Your task to perform on an android device: install app "Roku - Official Remote Control" Image 0: 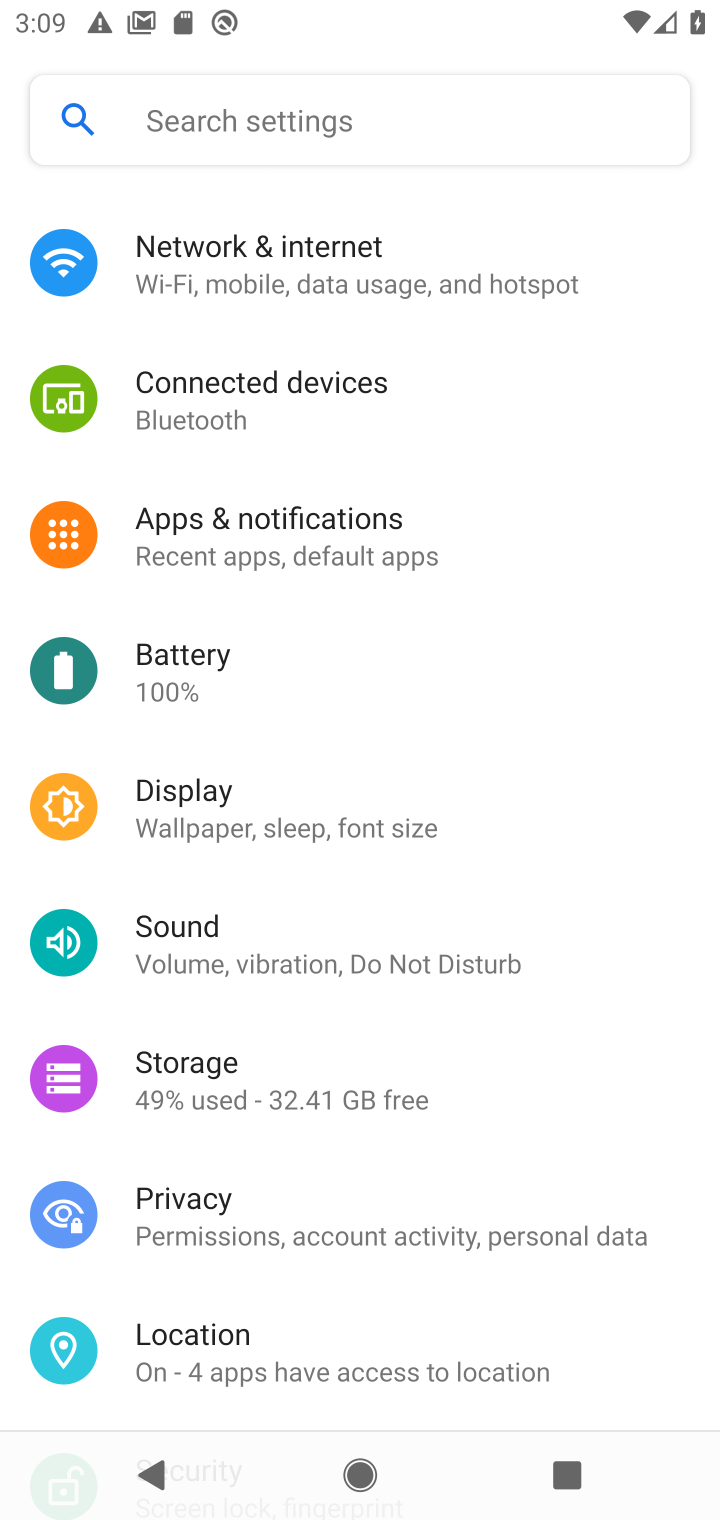
Step 0: press home button
Your task to perform on an android device: install app "Roku - Official Remote Control" Image 1: 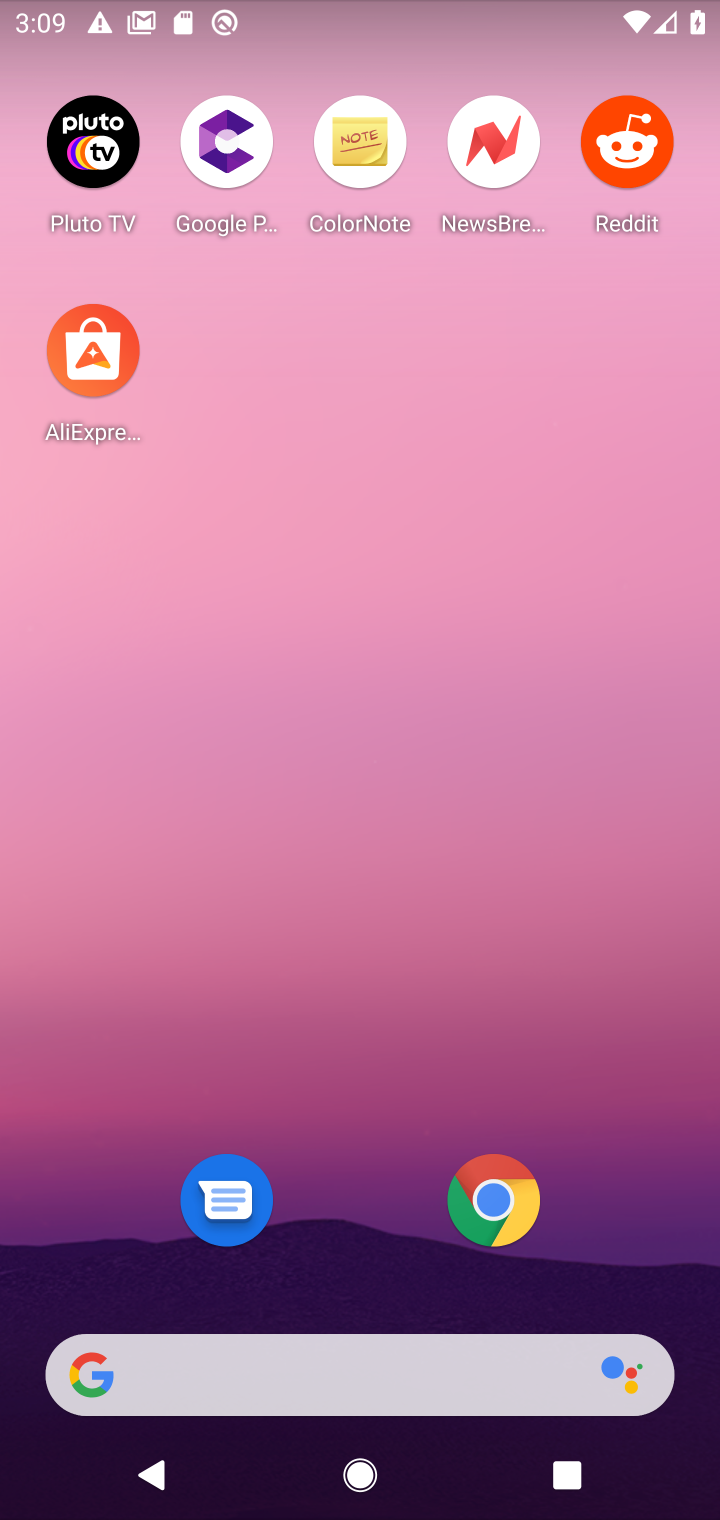
Step 1: drag from (293, 1108) to (380, 81)
Your task to perform on an android device: install app "Roku - Official Remote Control" Image 2: 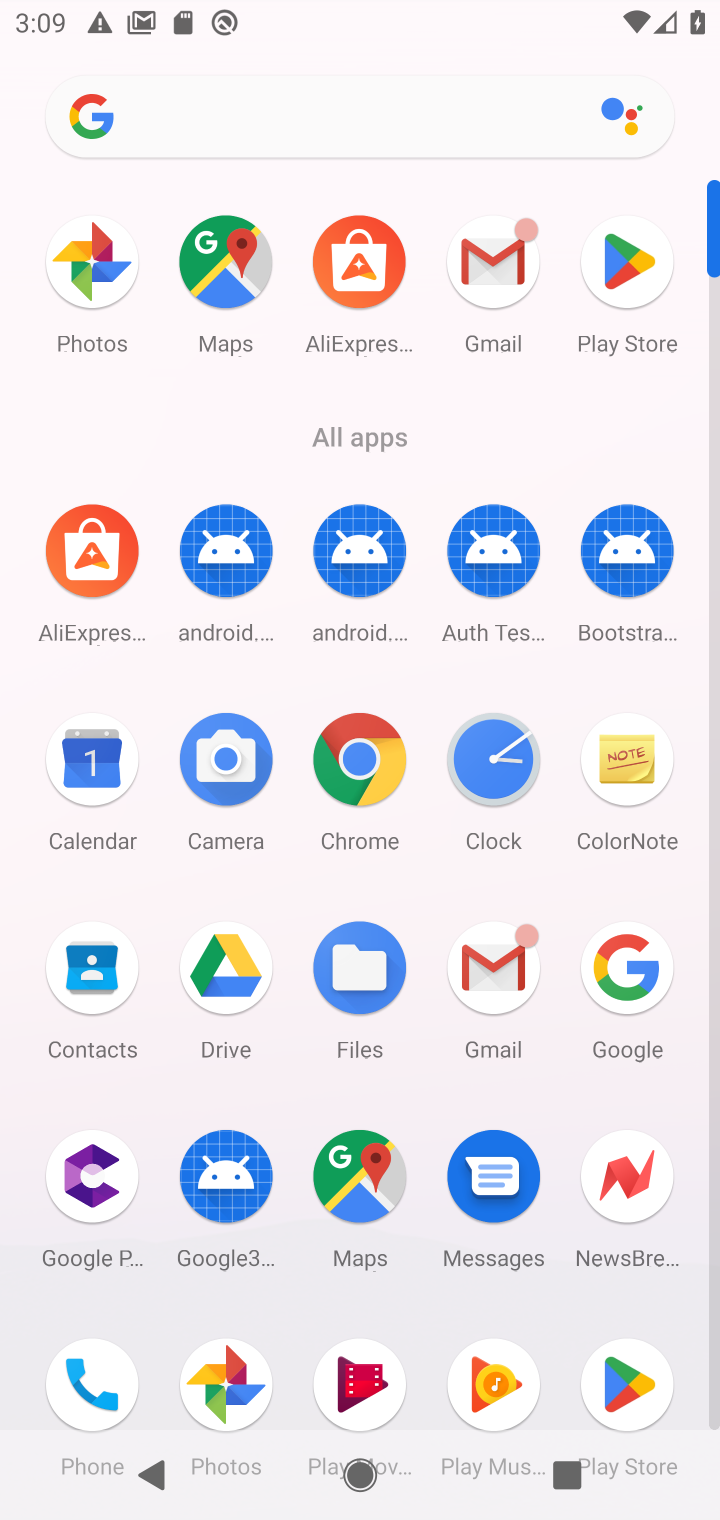
Step 2: click (634, 300)
Your task to perform on an android device: install app "Roku - Official Remote Control" Image 3: 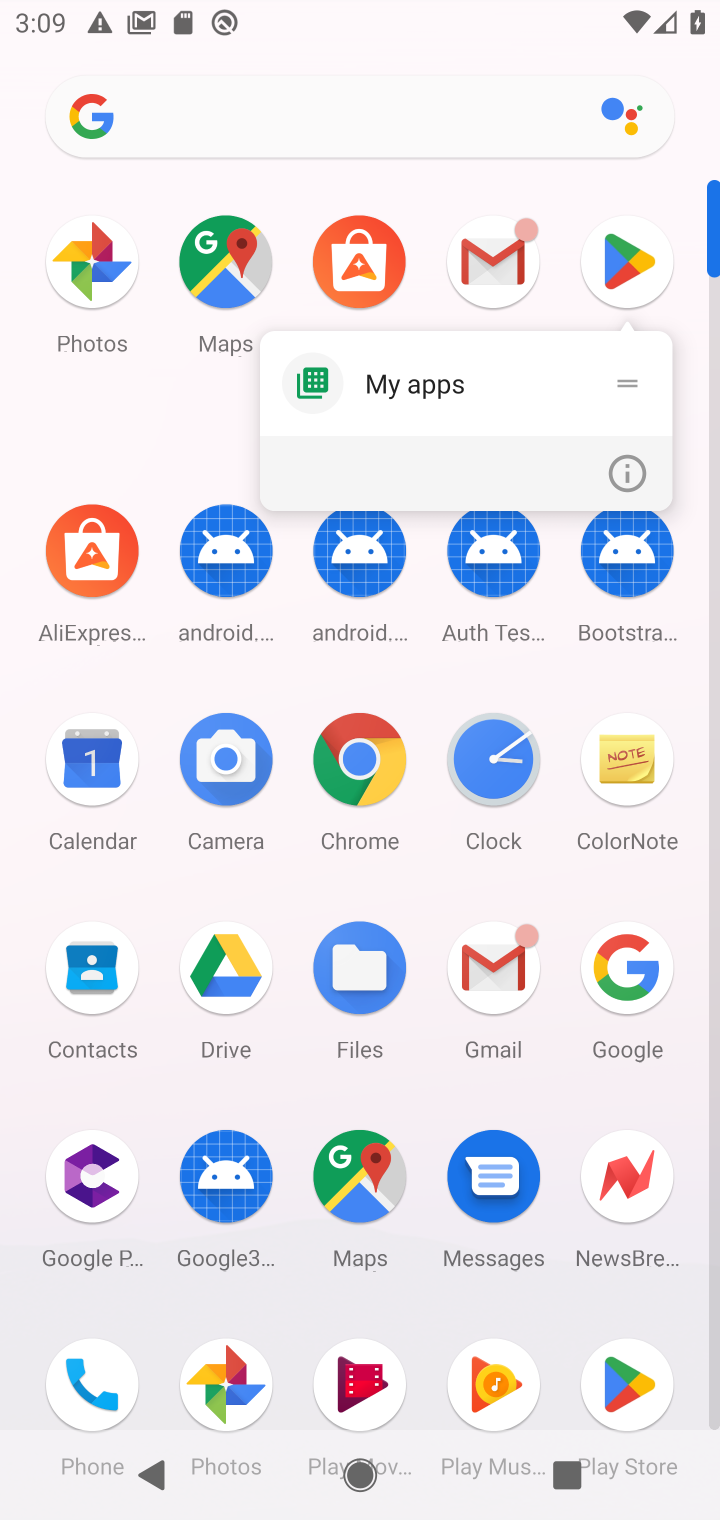
Step 3: click (622, 266)
Your task to perform on an android device: install app "Roku - Official Remote Control" Image 4: 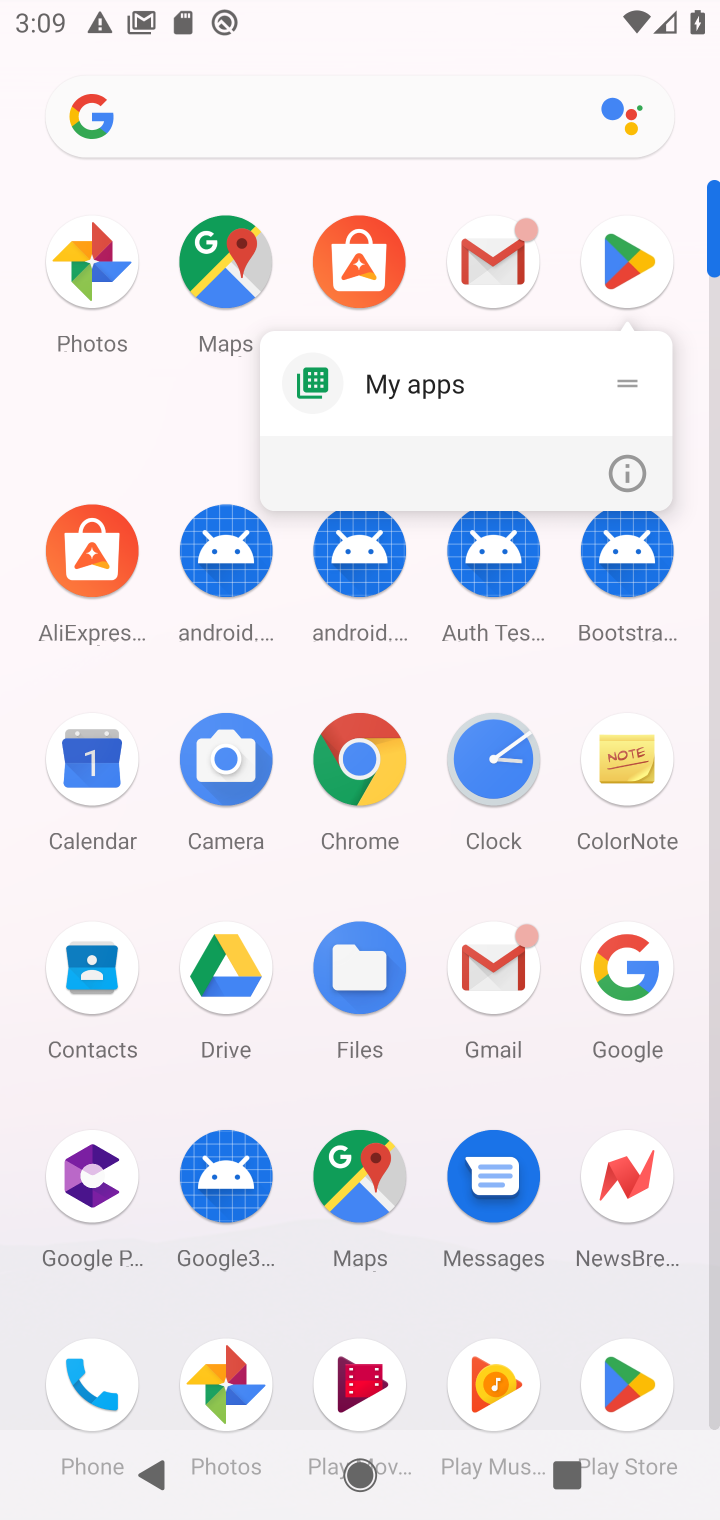
Step 4: click (622, 266)
Your task to perform on an android device: install app "Roku - Official Remote Control" Image 5: 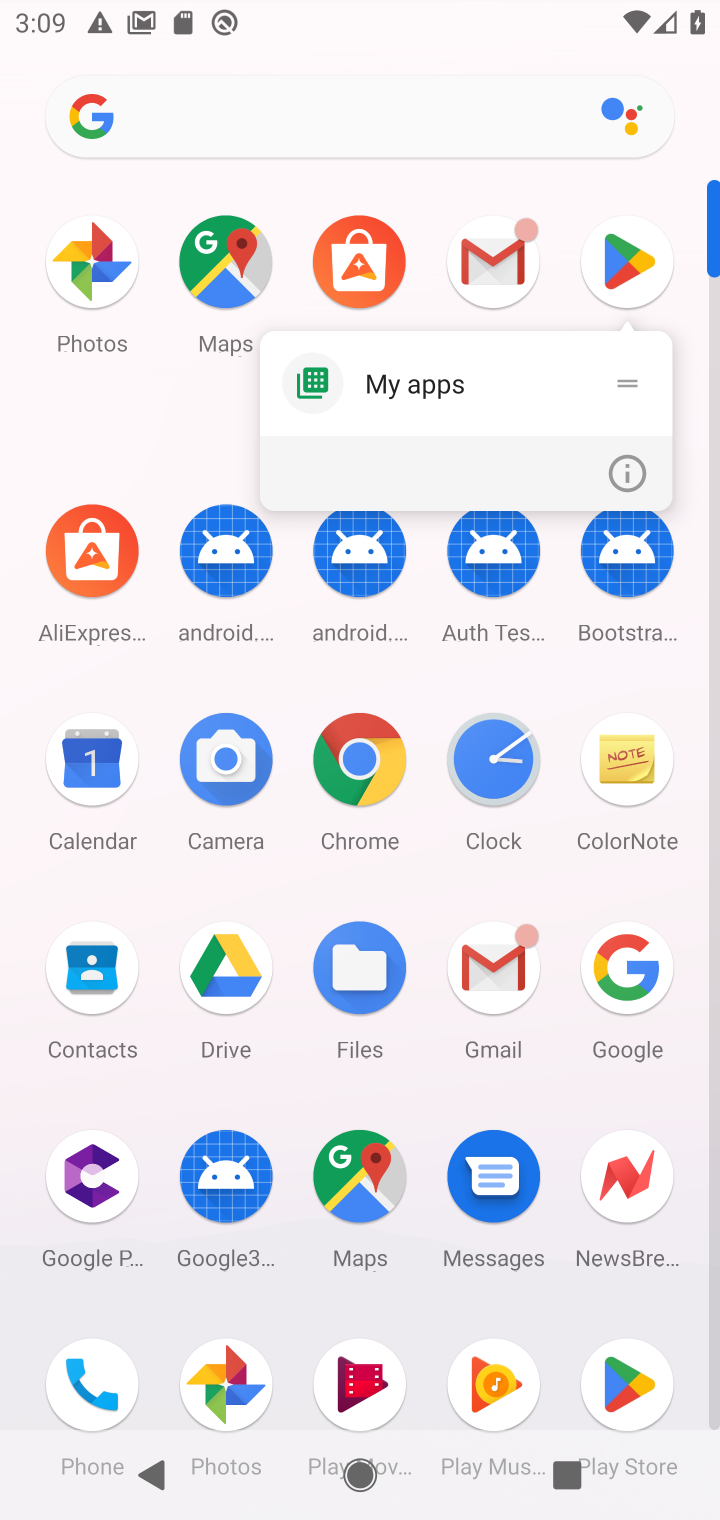
Step 5: click (615, 267)
Your task to perform on an android device: install app "Roku - Official Remote Control" Image 6: 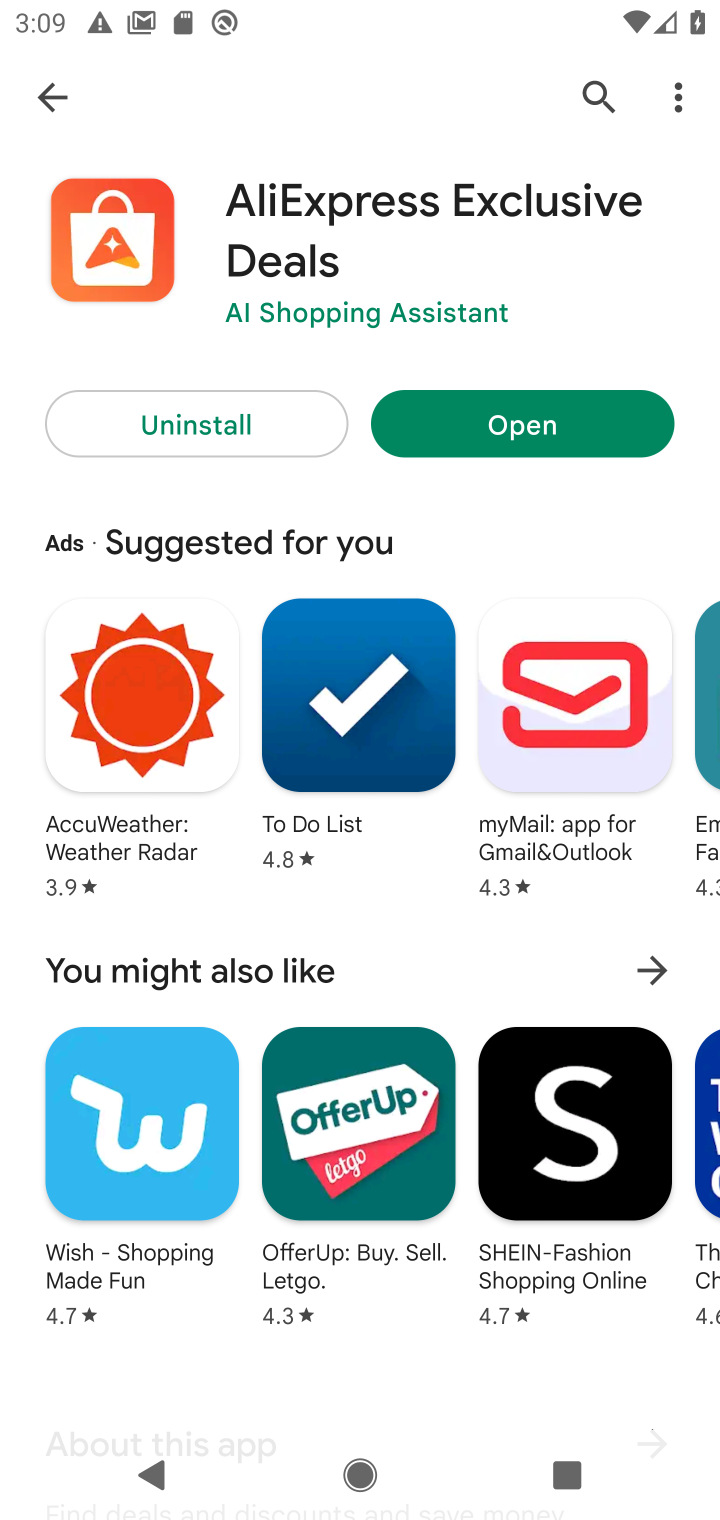
Step 6: click (57, 101)
Your task to perform on an android device: install app "Roku - Official Remote Control" Image 7: 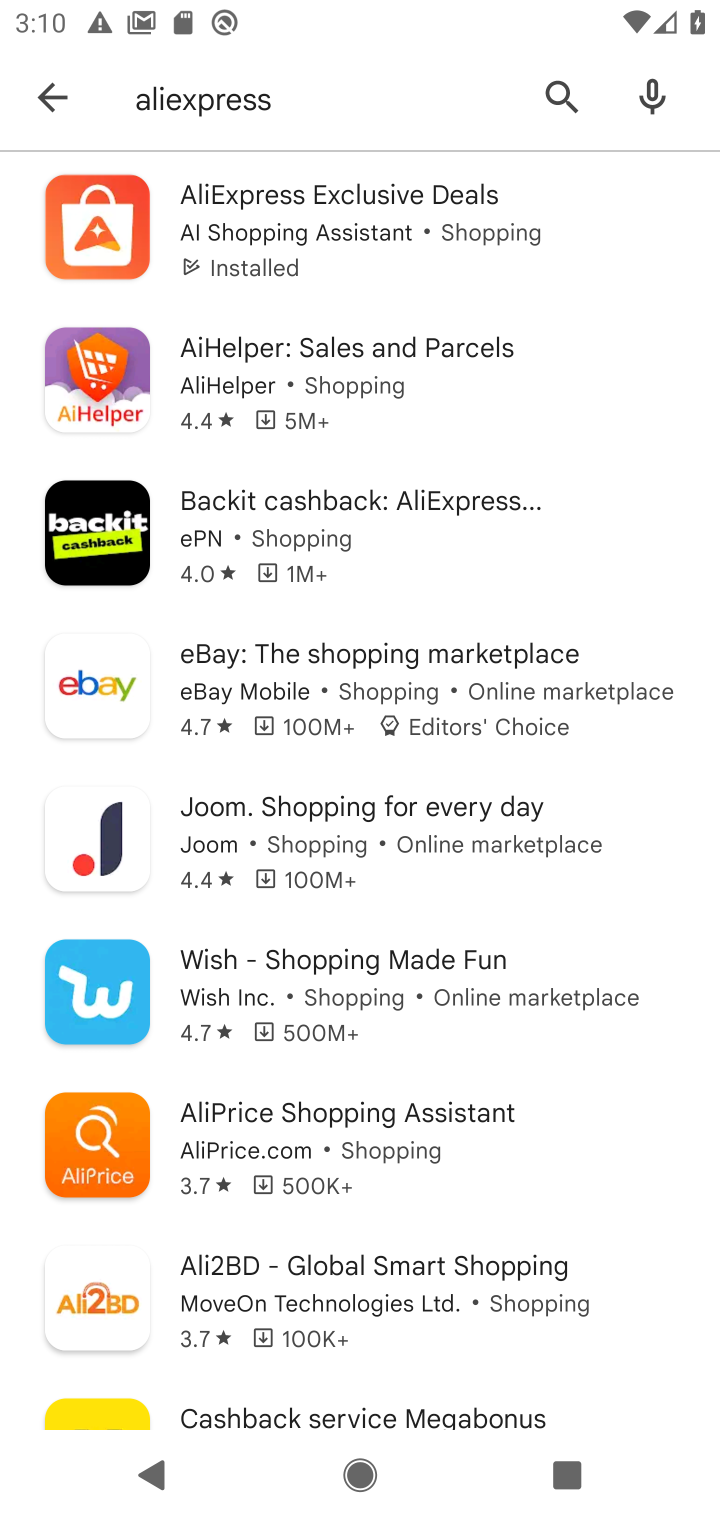
Step 7: click (234, 101)
Your task to perform on an android device: install app "Roku - Official Remote Control" Image 8: 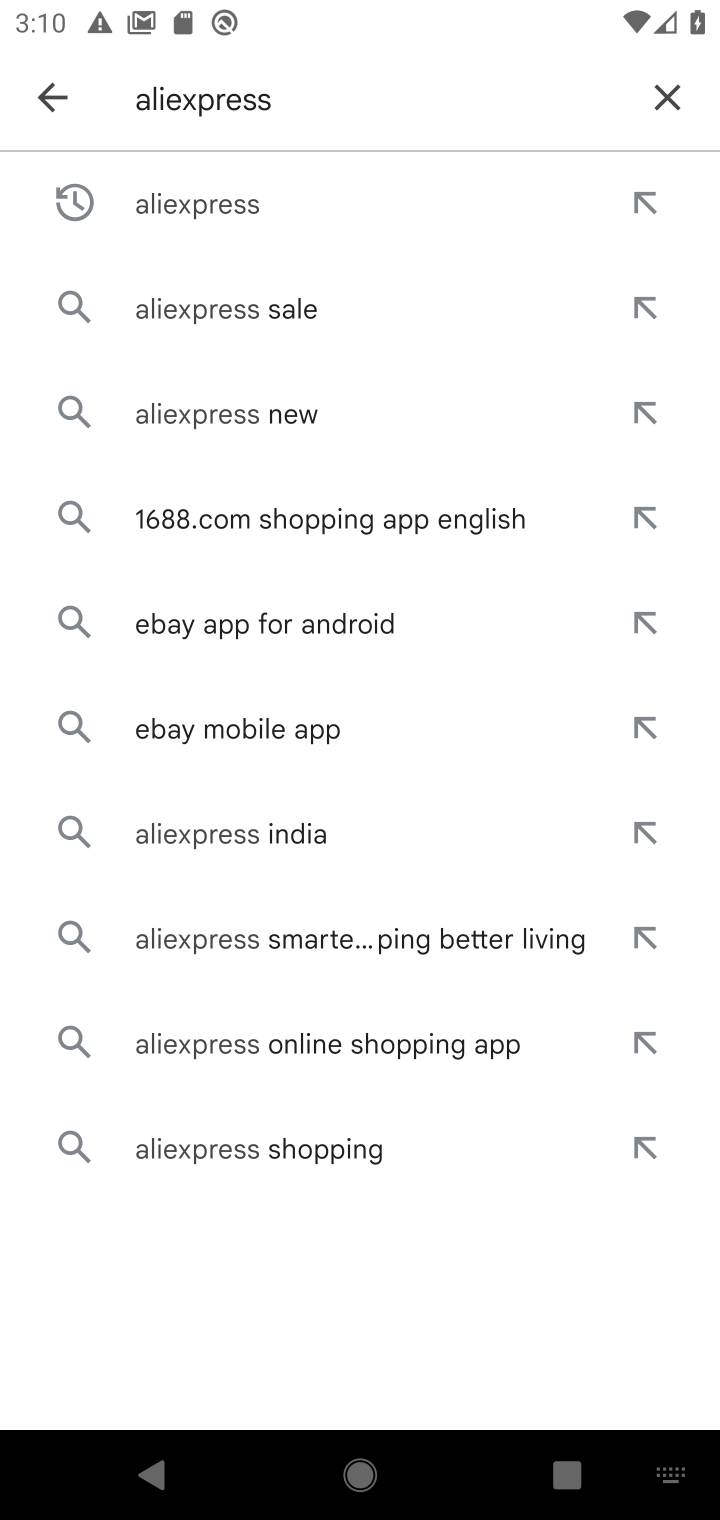
Step 8: click (672, 101)
Your task to perform on an android device: install app "Roku - Official Remote Control" Image 9: 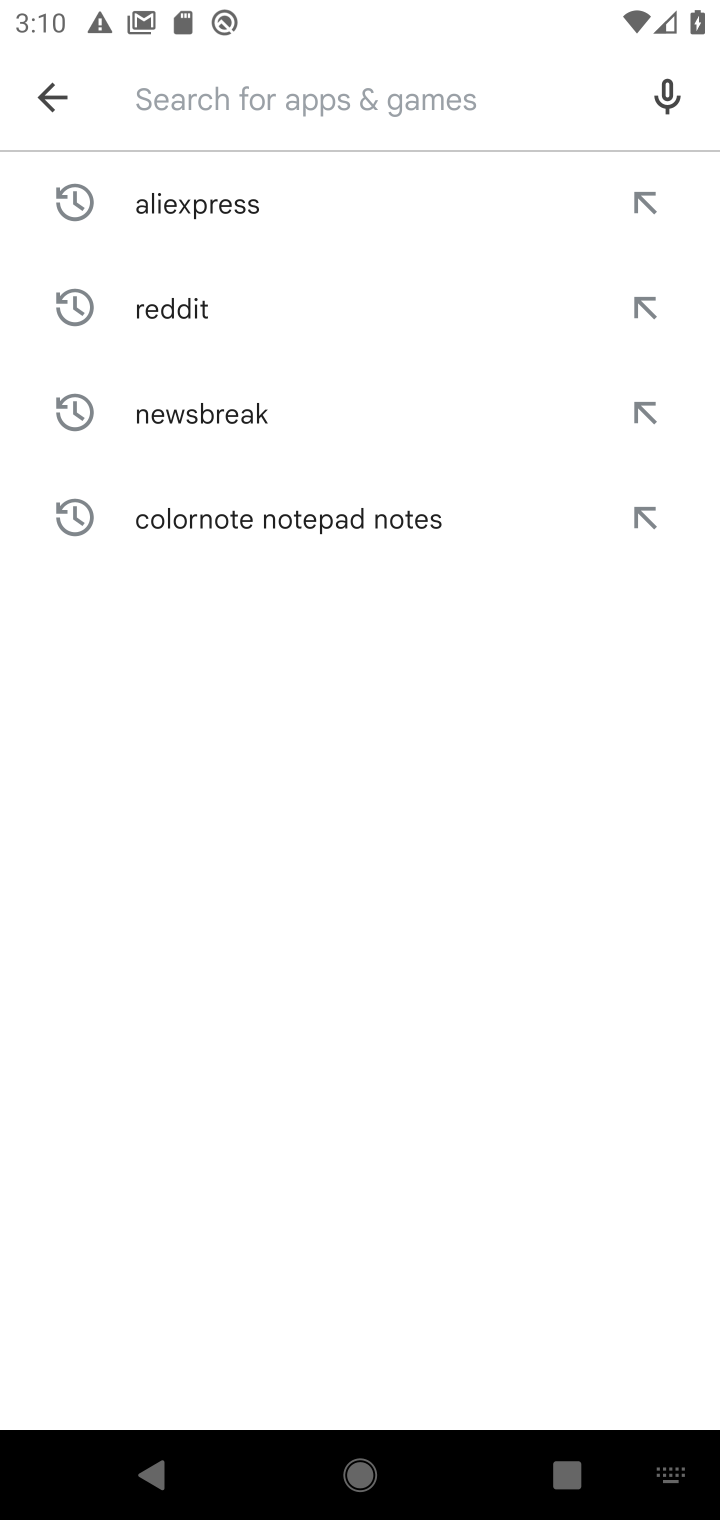
Step 9: type "roku"
Your task to perform on an android device: install app "Roku - Official Remote Control" Image 10: 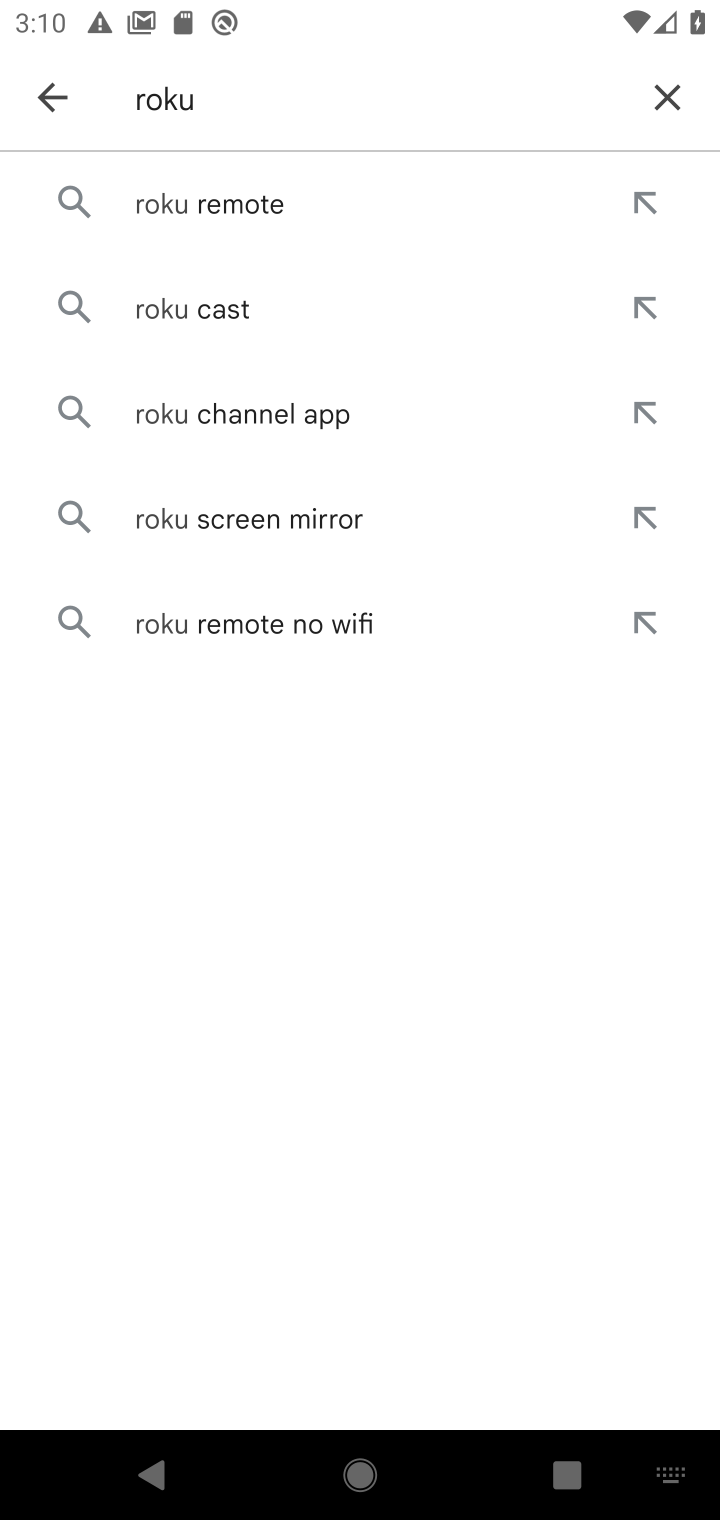
Step 10: click (235, 196)
Your task to perform on an android device: install app "Roku - Official Remote Control" Image 11: 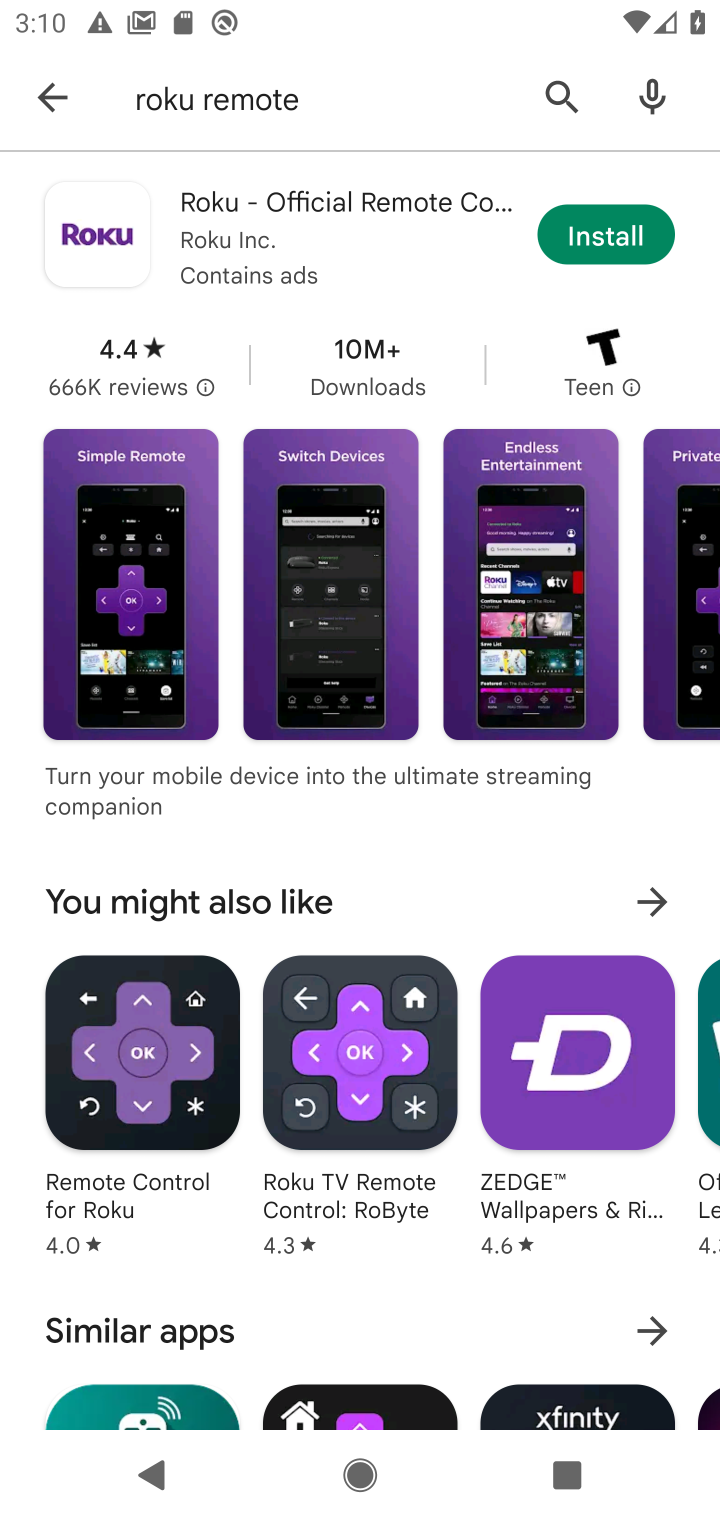
Step 11: click (636, 223)
Your task to perform on an android device: install app "Roku - Official Remote Control" Image 12: 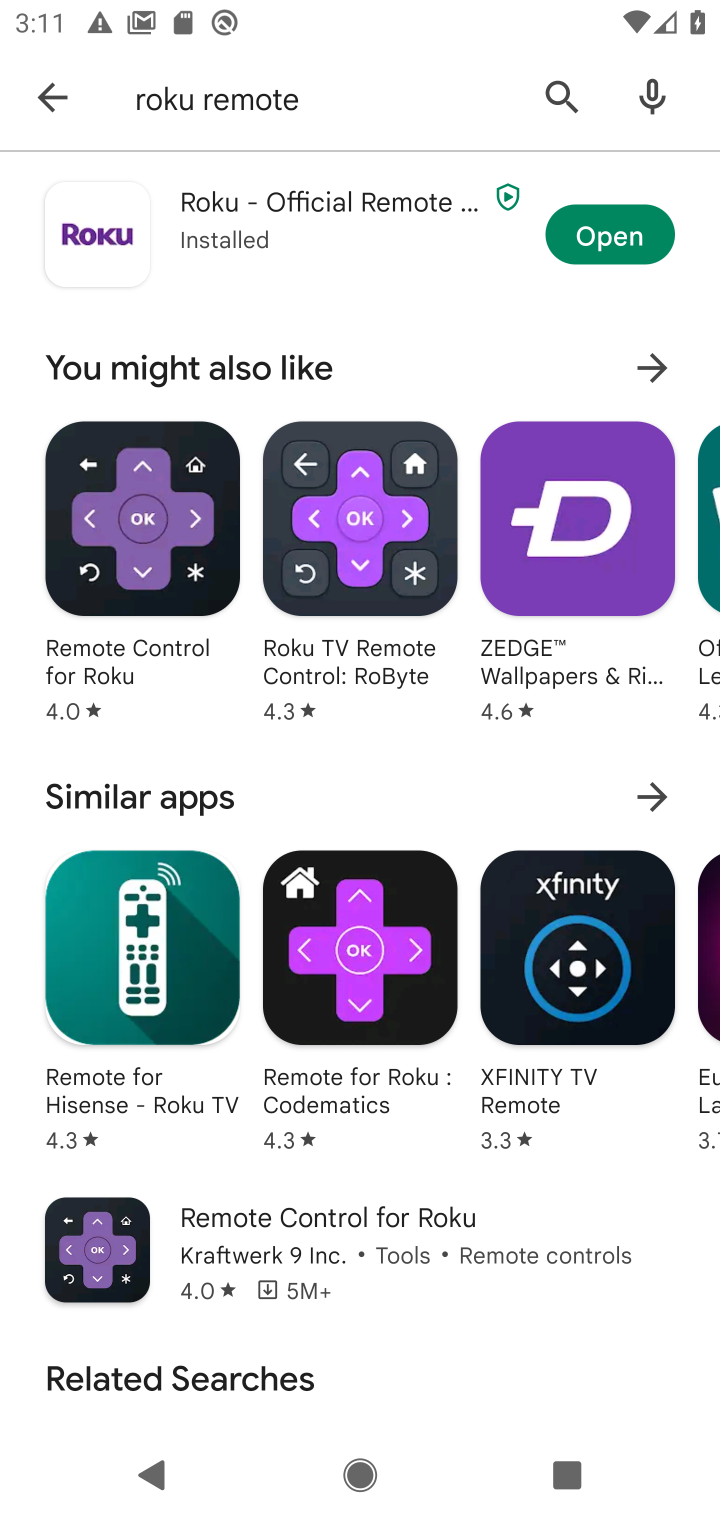
Step 12: task complete